Your task to perform on an android device: check the backup settings in the google photos Image 0: 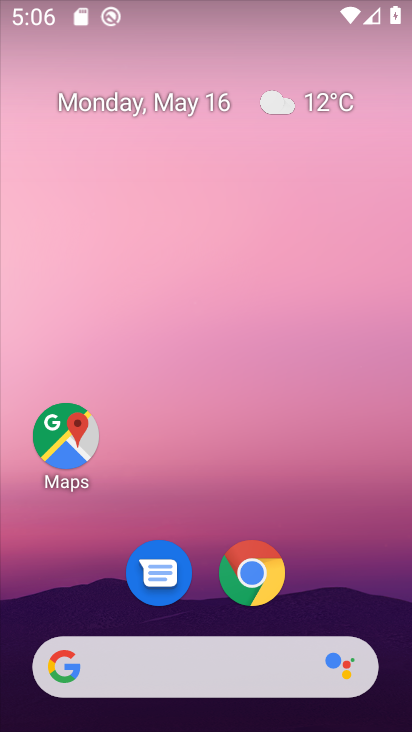
Step 0: drag from (204, 601) to (204, 149)
Your task to perform on an android device: check the backup settings in the google photos Image 1: 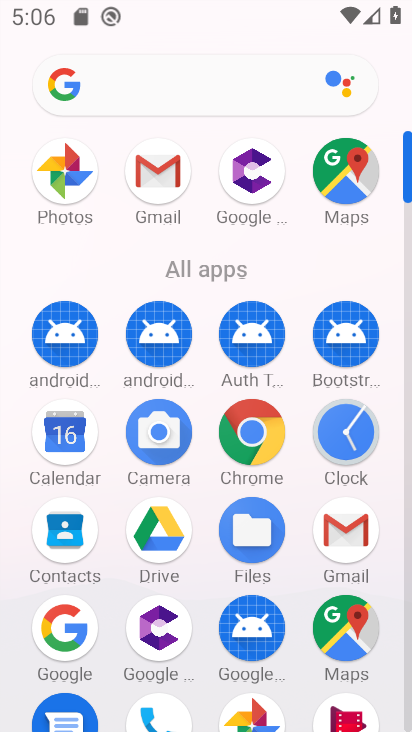
Step 1: drag from (243, 675) to (273, 391)
Your task to perform on an android device: check the backup settings in the google photos Image 2: 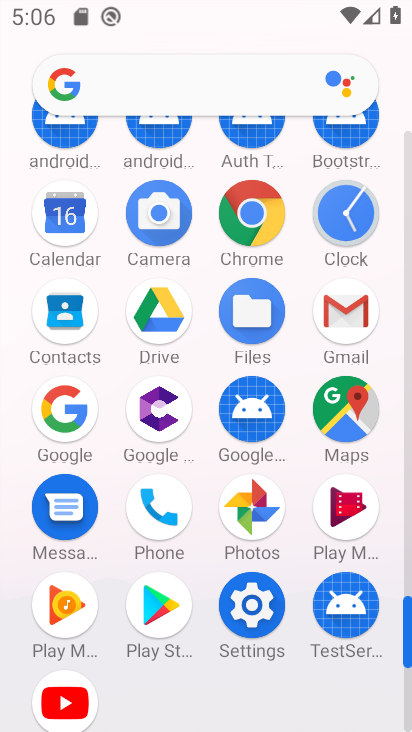
Step 2: click (253, 508)
Your task to perform on an android device: check the backup settings in the google photos Image 3: 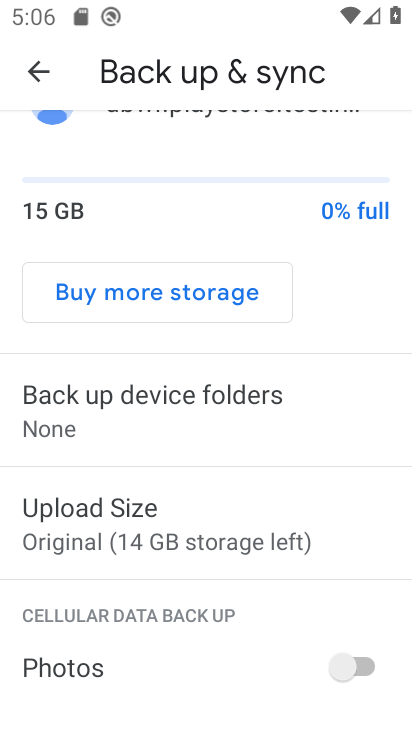
Step 3: task complete